Your task to perform on an android device: delete location history Image 0: 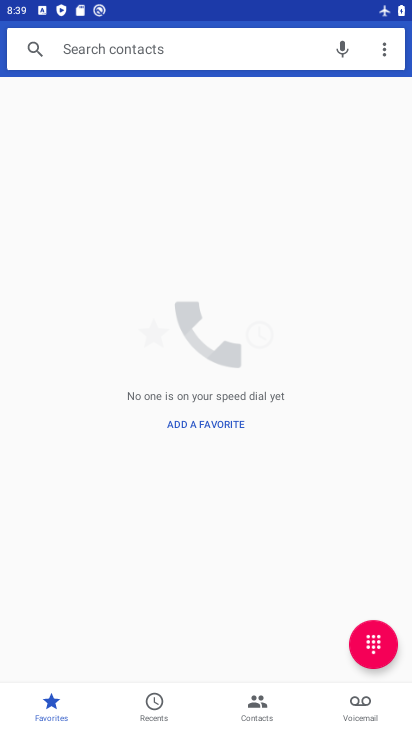
Step 0: press home button
Your task to perform on an android device: delete location history Image 1: 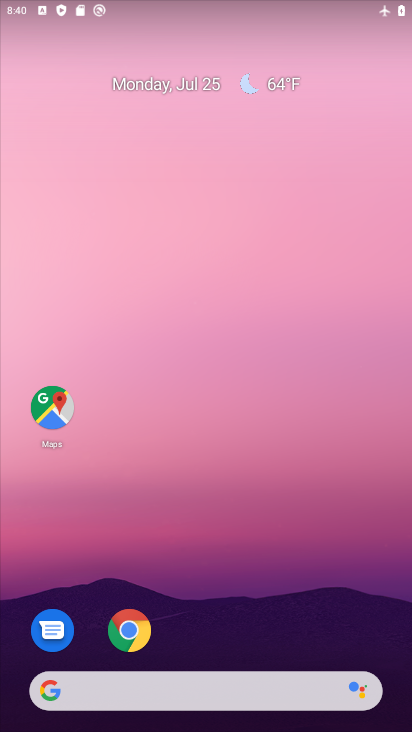
Step 1: click (51, 406)
Your task to perform on an android device: delete location history Image 2: 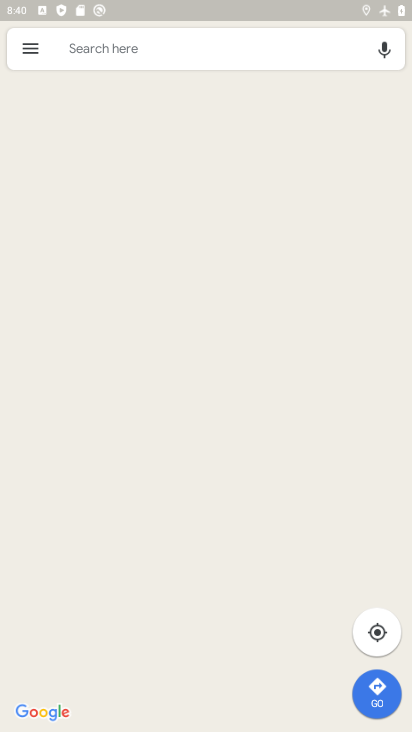
Step 2: click (26, 50)
Your task to perform on an android device: delete location history Image 3: 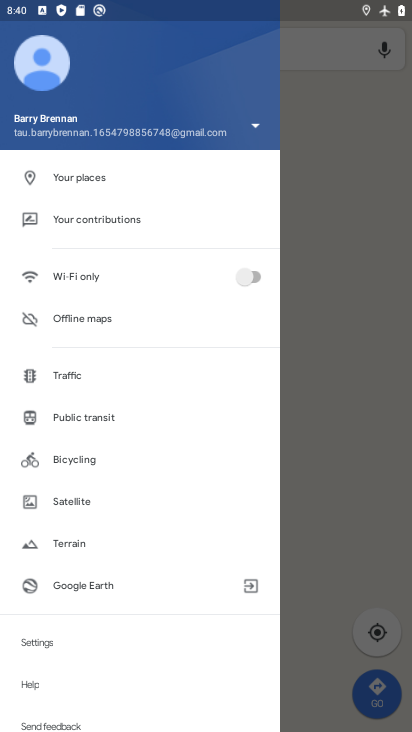
Step 3: drag from (80, 656) to (83, 416)
Your task to perform on an android device: delete location history Image 4: 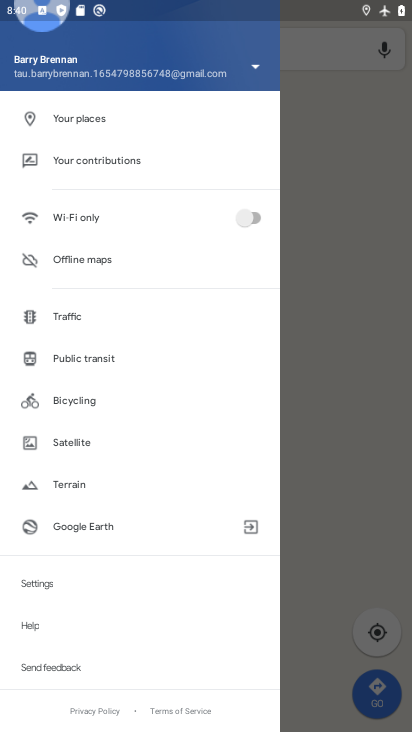
Step 4: click (41, 581)
Your task to perform on an android device: delete location history Image 5: 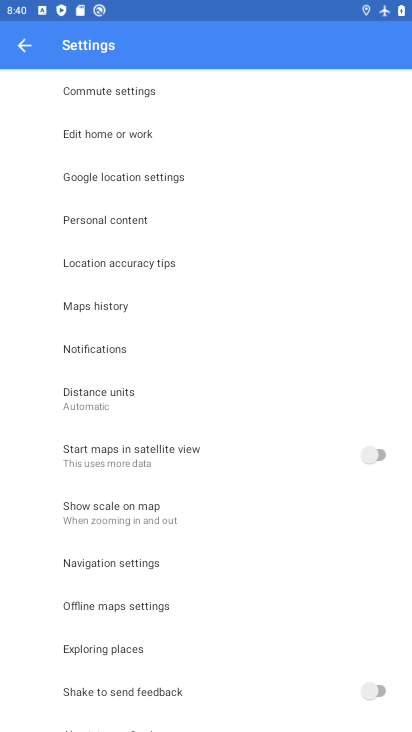
Step 5: click (99, 224)
Your task to perform on an android device: delete location history Image 6: 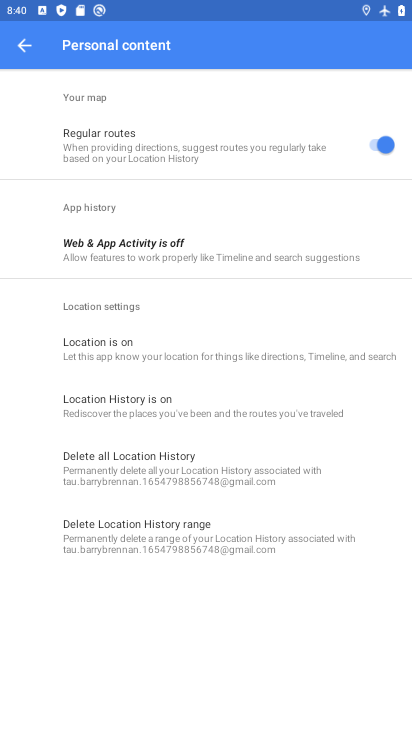
Step 6: click (112, 466)
Your task to perform on an android device: delete location history Image 7: 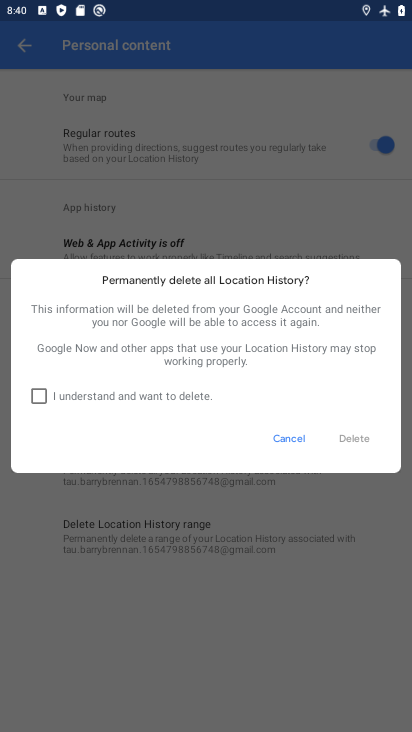
Step 7: click (41, 400)
Your task to perform on an android device: delete location history Image 8: 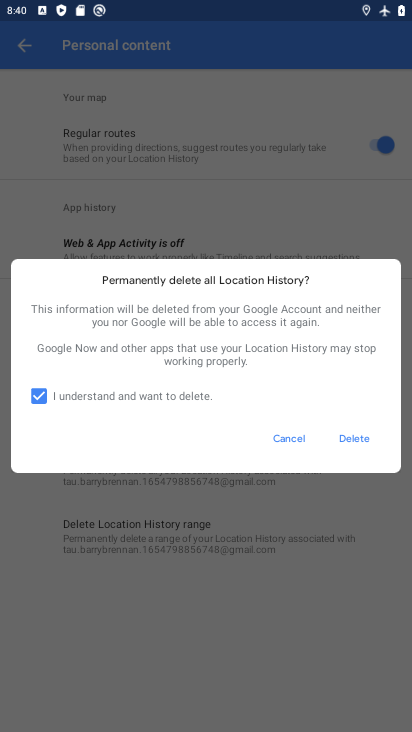
Step 8: click (355, 438)
Your task to perform on an android device: delete location history Image 9: 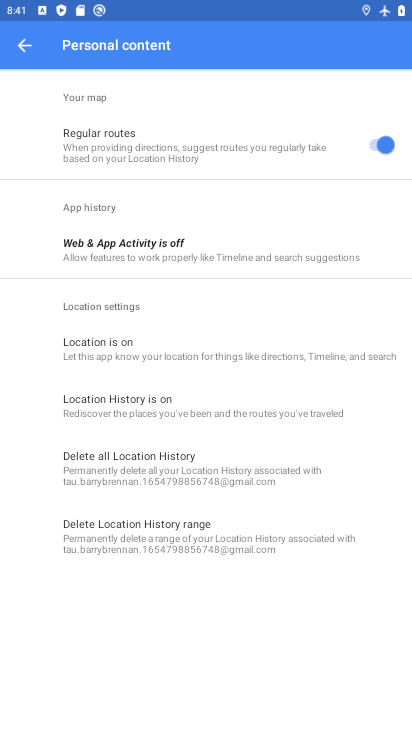
Step 9: task complete